Your task to perform on an android device: What's the weather today? Image 0: 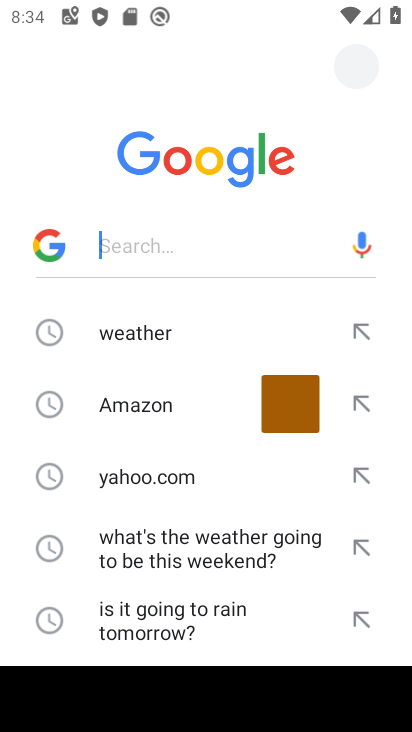
Step 0: press home button
Your task to perform on an android device: What's the weather today? Image 1: 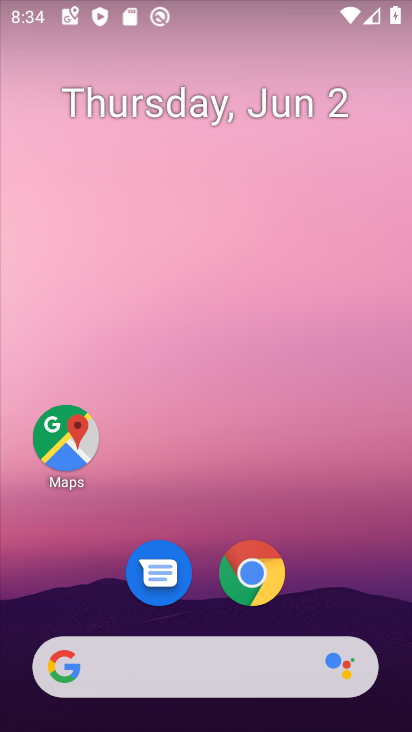
Step 1: click (256, 596)
Your task to perform on an android device: What's the weather today? Image 2: 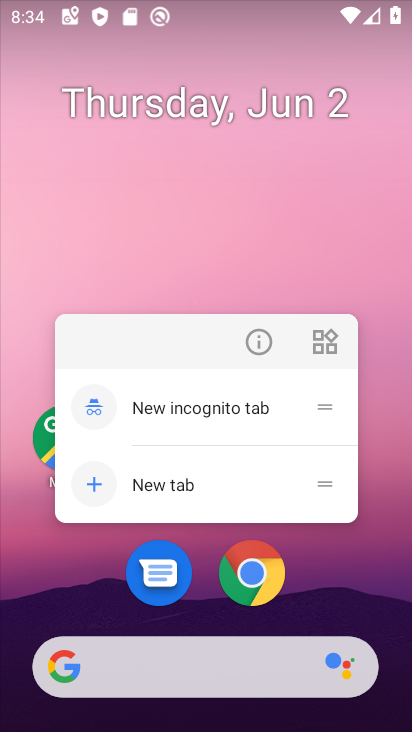
Step 2: click (256, 596)
Your task to perform on an android device: What's the weather today? Image 3: 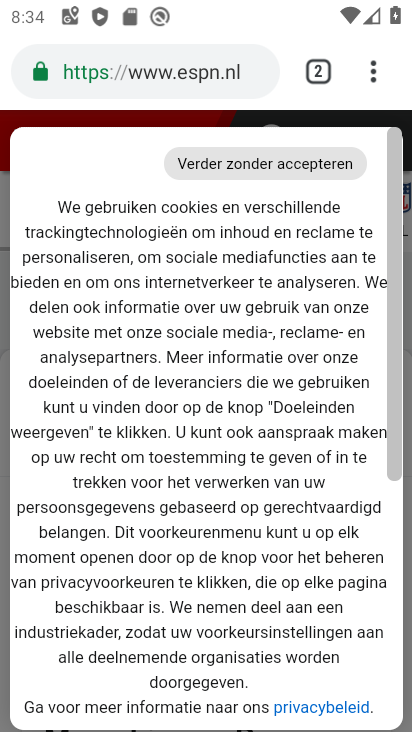
Step 3: click (122, 70)
Your task to perform on an android device: What's the weather today? Image 4: 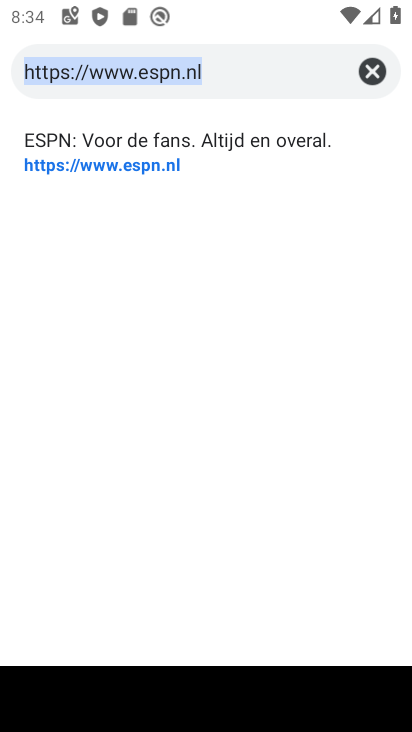
Step 4: click (367, 64)
Your task to perform on an android device: What's the weather today? Image 5: 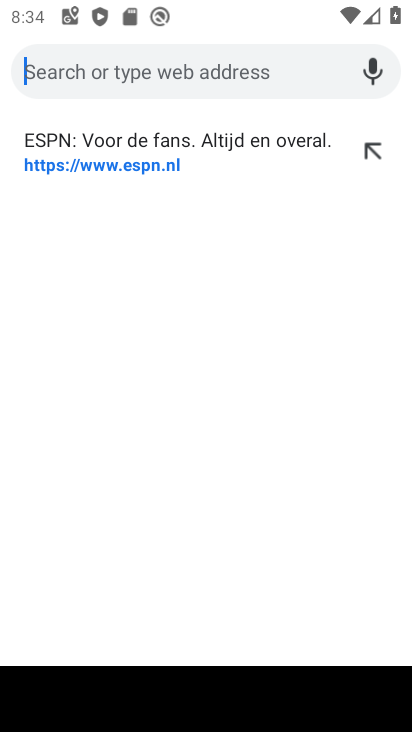
Step 5: type "What's the weather today?"
Your task to perform on an android device: What's the weather today? Image 6: 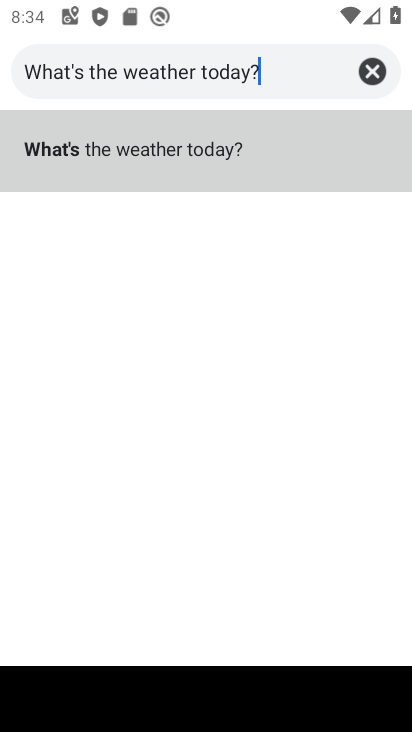
Step 6: type ""
Your task to perform on an android device: What's the weather today? Image 7: 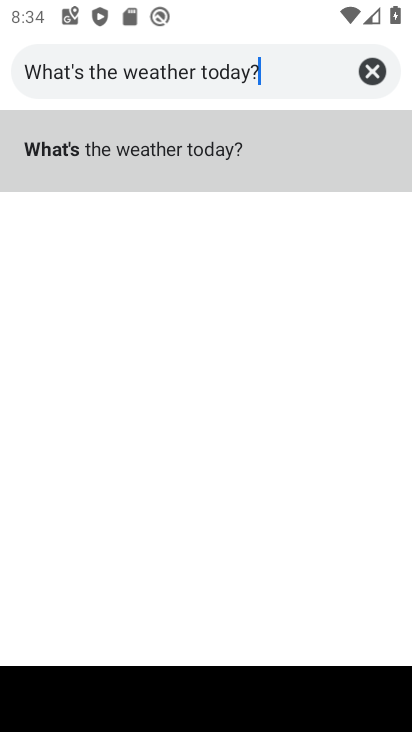
Step 7: click (198, 163)
Your task to perform on an android device: What's the weather today? Image 8: 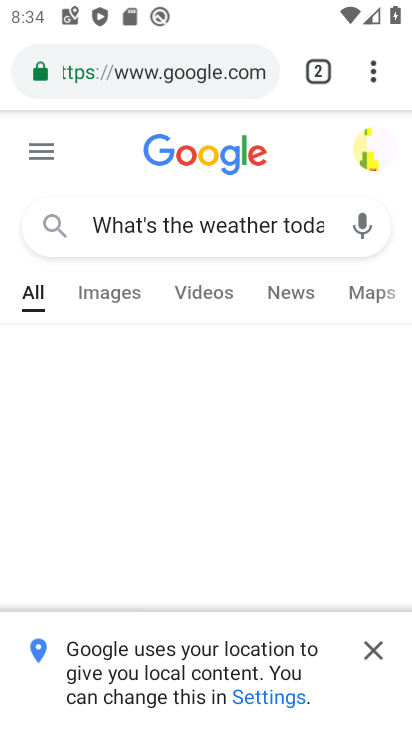
Step 8: task complete